Your task to perform on an android device: Check the settings for the Amazon Music app Image 0: 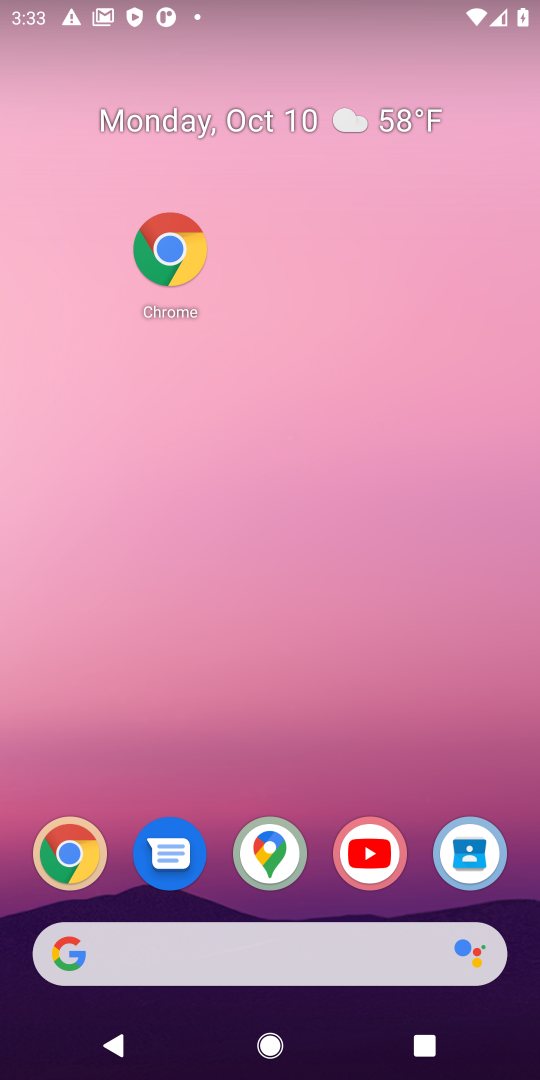
Step 0: drag from (231, 884) to (183, 117)
Your task to perform on an android device: Check the settings for the Amazon Music app Image 1: 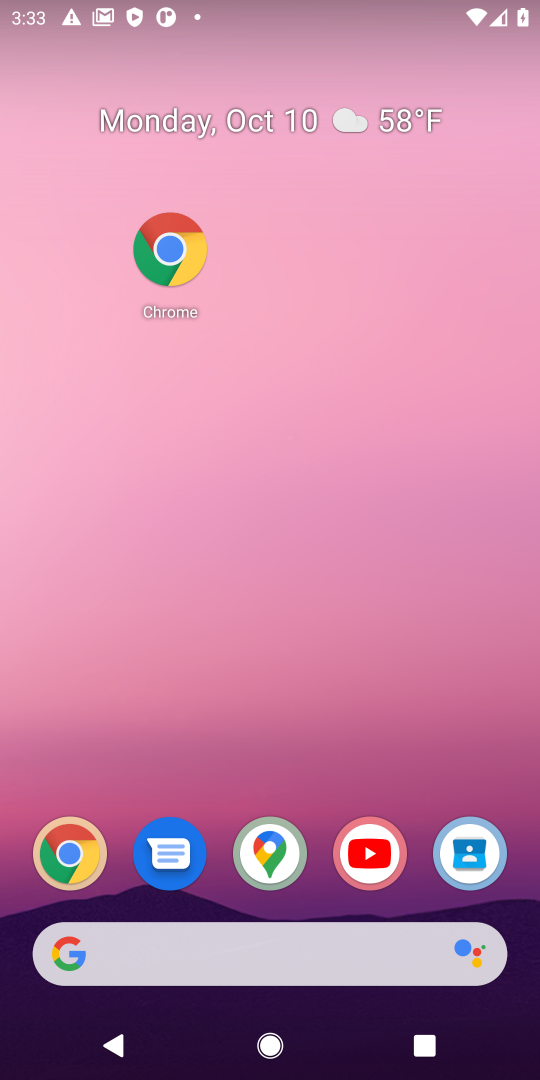
Step 1: drag from (329, 893) to (295, 158)
Your task to perform on an android device: Check the settings for the Amazon Music app Image 2: 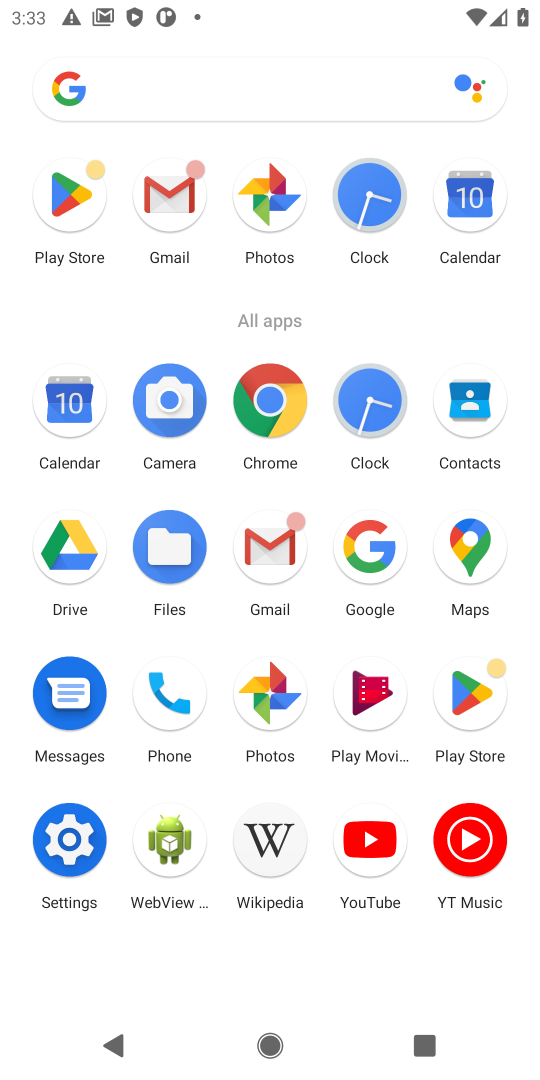
Step 2: click (468, 704)
Your task to perform on an android device: Check the settings for the Amazon Music app Image 3: 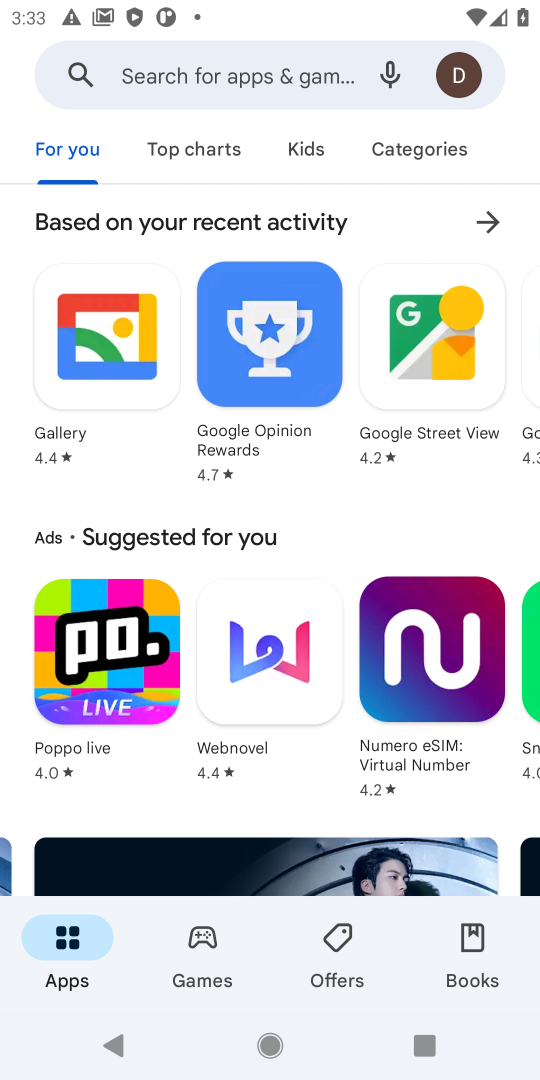
Step 3: click (269, 94)
Your task to perform on an android device: Check the settings for the Amazon Music app Image 4: 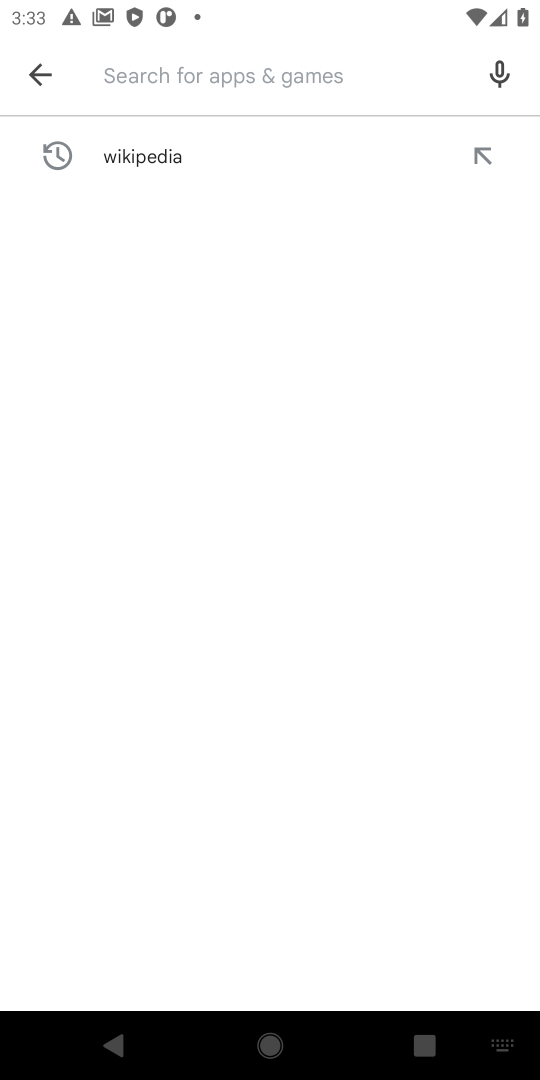
Step 4: type "amazon music"
Your task to perform on an android device: Check the settings for the Amazon Music app Image 5: 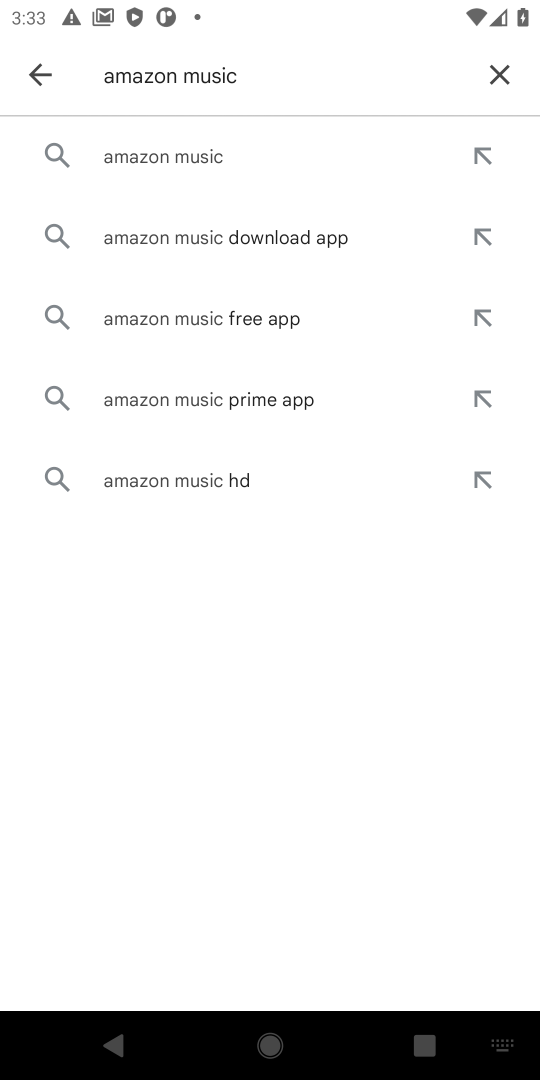
Step 5: click (217, 165)
Your task to perform on an android device: Check the settings for the Amazon Music app Image 6: 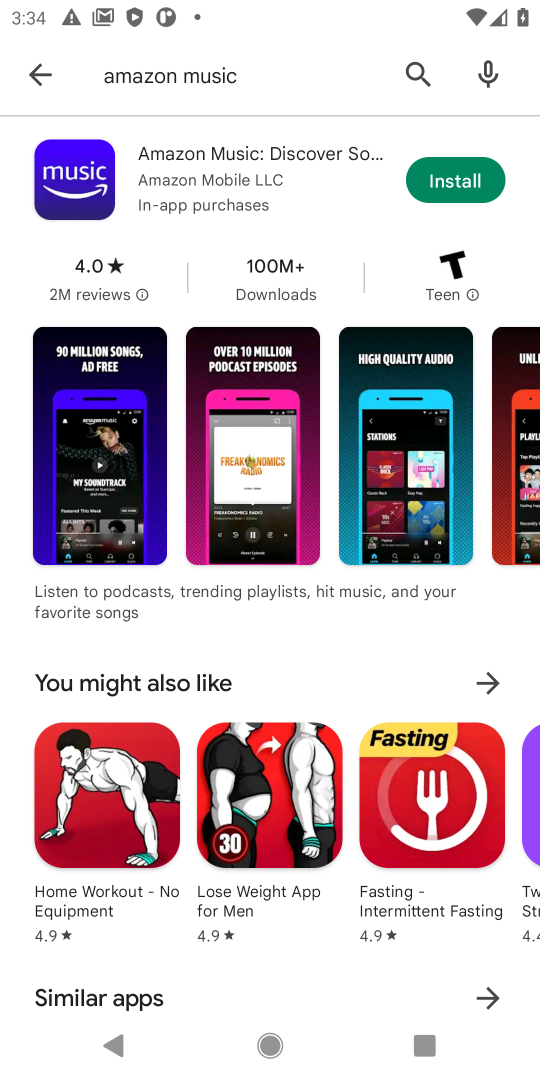
Step 6: task complete